Your task to perform on an android device: turn off priority inbox in the gmail app Image 0: 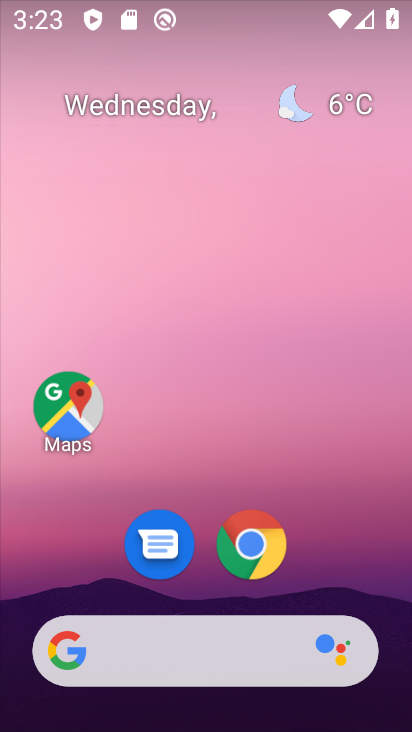
Step 0: drag from (57, 610) to (173, 197)
Your task to perform on an android device: turn off priority inbox in the gmail app Image 1: 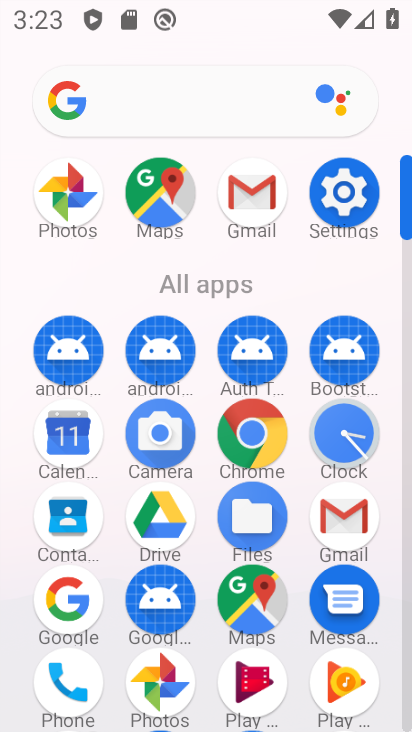
Step 1: click (326, 520)
Your task to perform on an android device: turn off priority inbox in the gmail app Image 2: 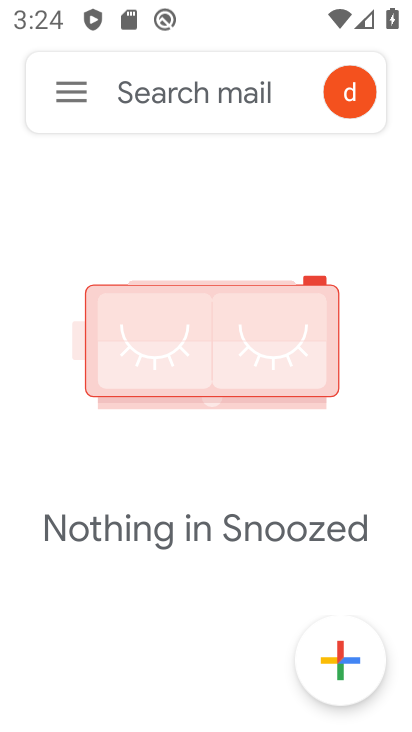
Step 2: click (65, 82)
Your task to perform on an android device: turn off priority inbox in the gmail app Image 3: 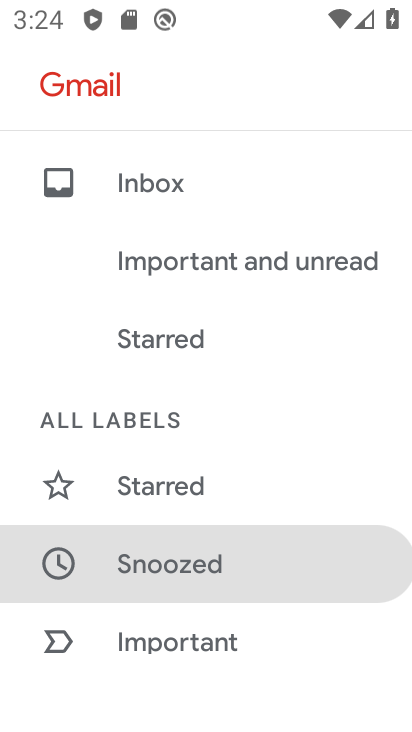
Step 3: drag from (146, 602) to (264, 129)
Your task to perform on an android device: turn off priority inbox in the gmail app Image 4: 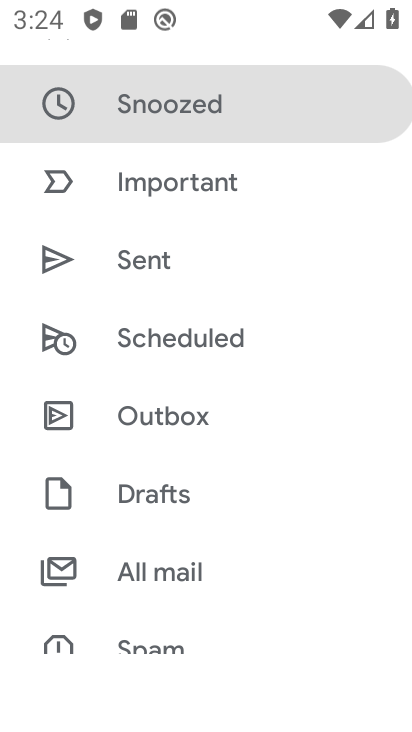
Step 4: drag from (219, 617) to (305, 177)
Your task to perform on an android device: turn off priority inbox in the gmail app Image 5: 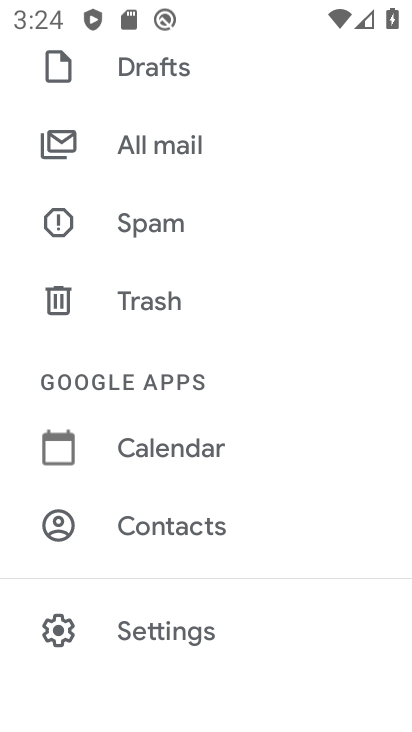
Step 5: drag from (232, 586) to (267, 321)
Your task to perform on an android device: turn off priority inbox in the gmail app Image 6: 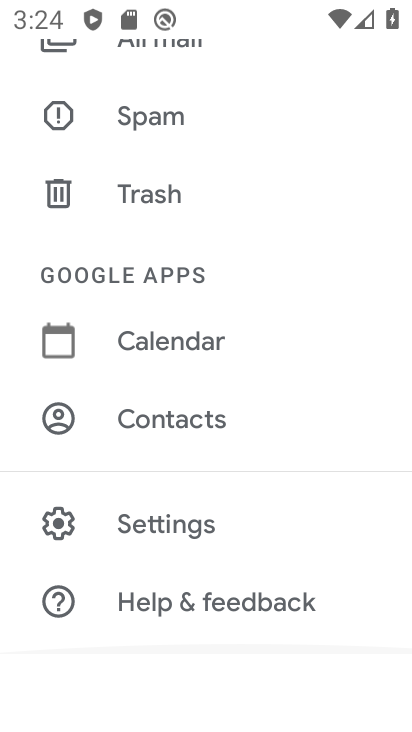
Step 6: click (226, 526)
Your task to perform on an android device: turn off priority inbox in the gmail app Image 7: 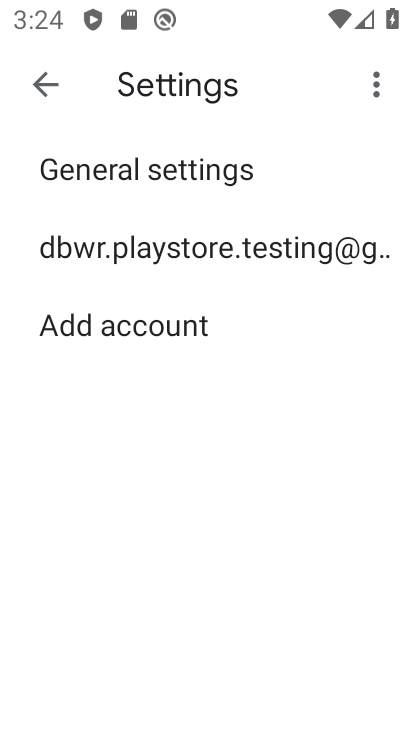
Step 7: click (237, 257)
Your task to perform on an android device: turn off priority inbox in the gmail app Image 8: 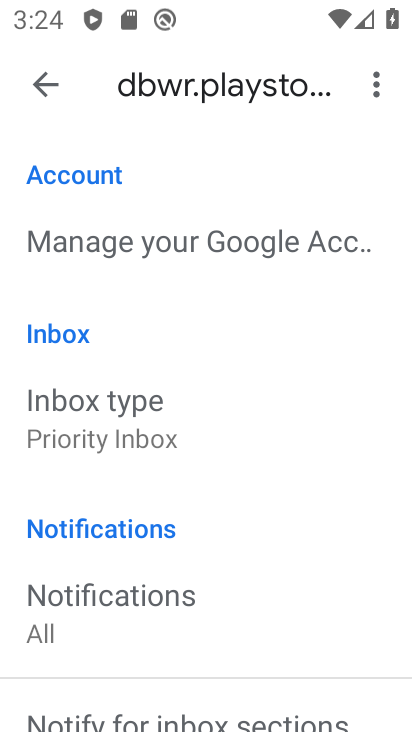
Step 8: click (221, 416)
Your task to perform on an android device: turn off priority inbox in the gmail app Image 9: 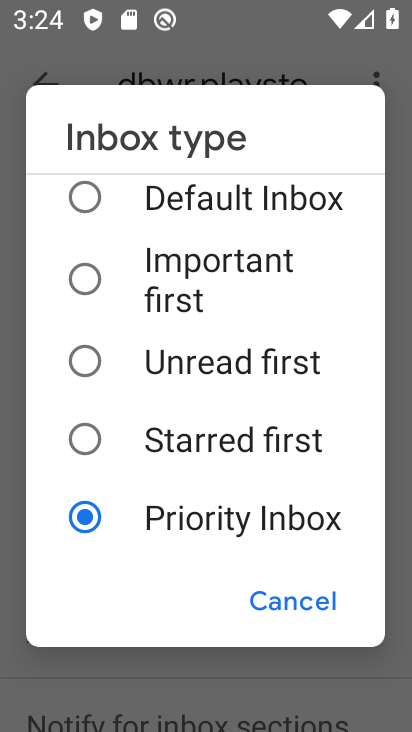
Step 9: click (184, 268)
Your task to perform on an android device: turn off priority inbox in the gmail app Image 10: 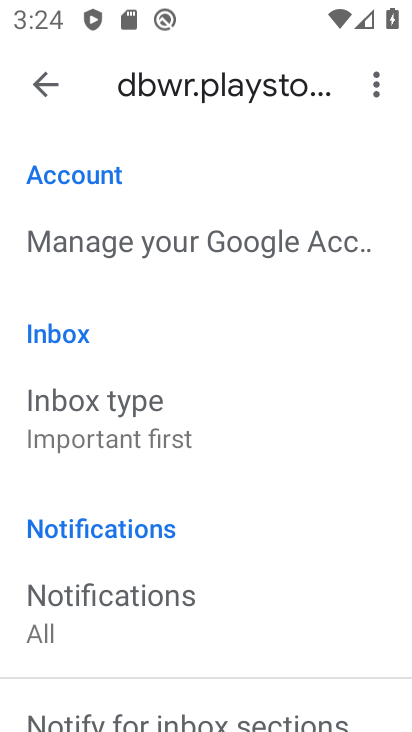
Step 10: task complete